Your task to perform on an android device: Open Yahoo.com Image 0: 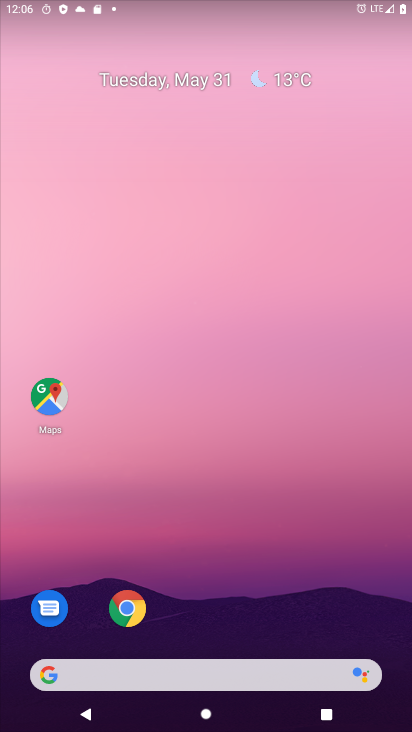
Step 0: click (136, 610)
Your task to perform on an android device: Open Yahoo.com Image 1: 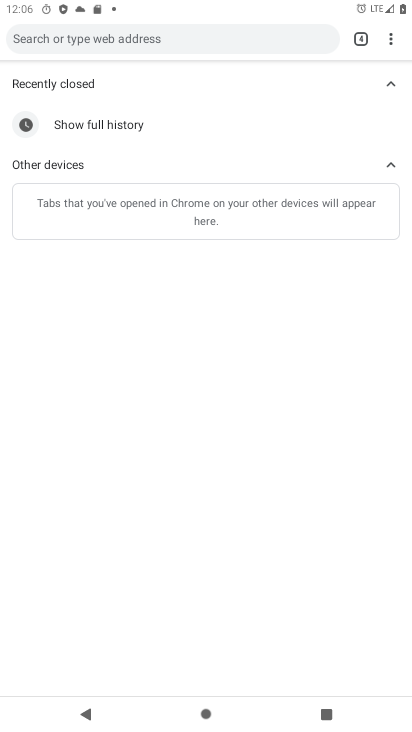
Step 1: click (109, 41)
Your task to perform on an android device: Open Yahoo.com Image 2: 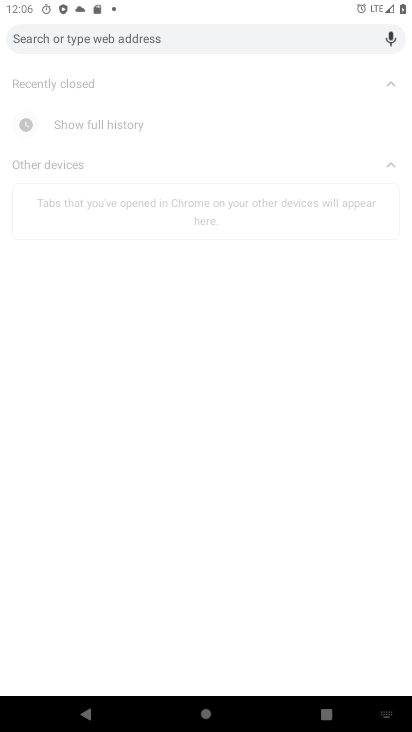
Step 2: type "yahoo.com"
Your task to perform on an android device: Open Yahoo.com Image 3: 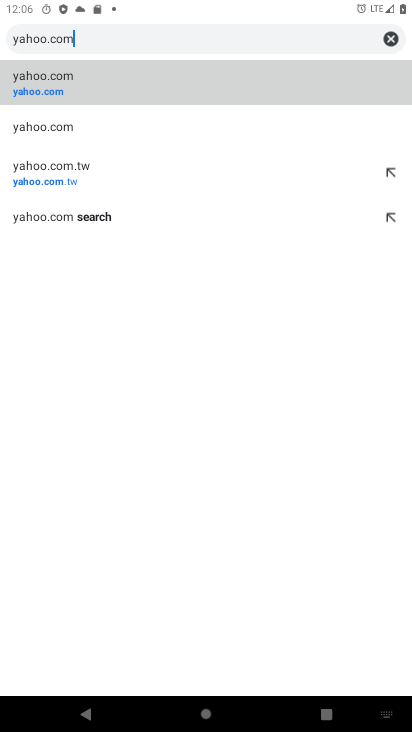
Step 3: click (49, 95)
Your task to perform on an android device: Open Yahoo.com Image 4: 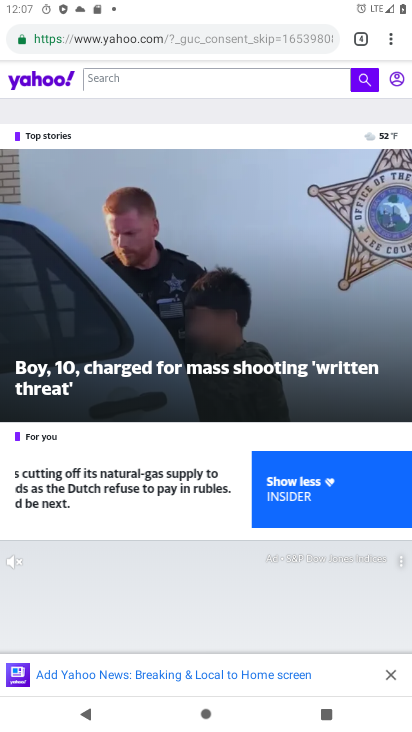
Step 4: task complete